Your task to perform on an android device: turn on javascript in the chrome app Image 0: 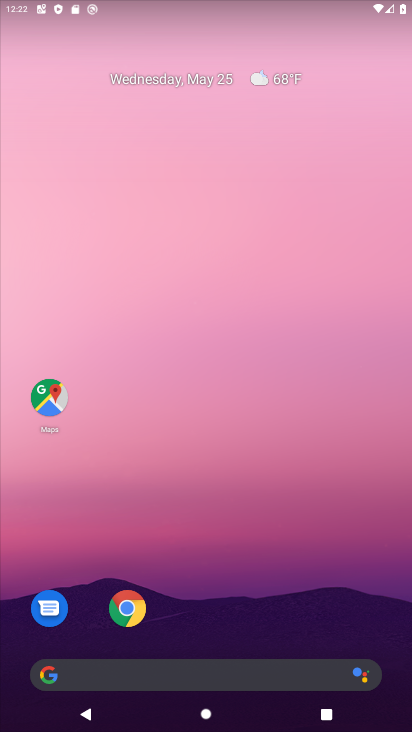
Step 0: click (141, 605)
Your task to perform on an android device: turn on javascript in the chrome app Image 1: 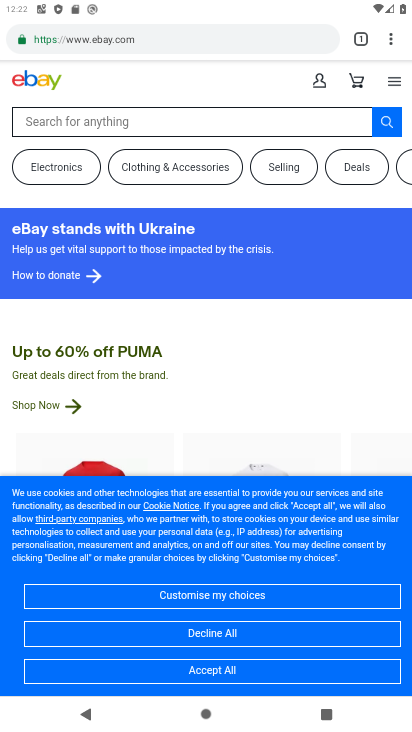
Step 1: click (393, 36)
Your task to perform on an android device: turn on javascript in the chrome app Image 2: 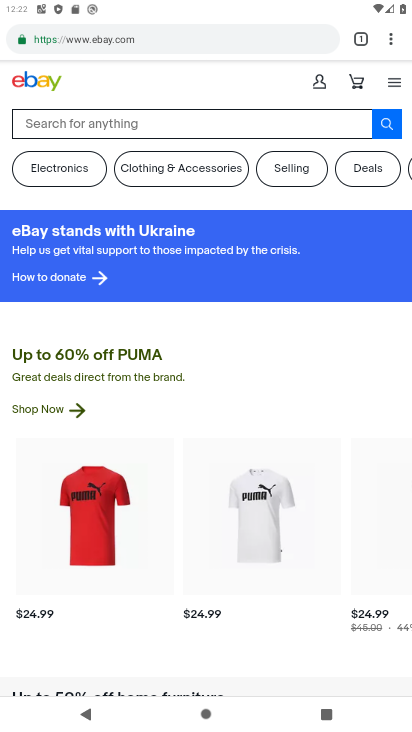
Step 2: click (392, 45)
Your task to perform on an android device: turn on javascript in the chrome app Image 3: 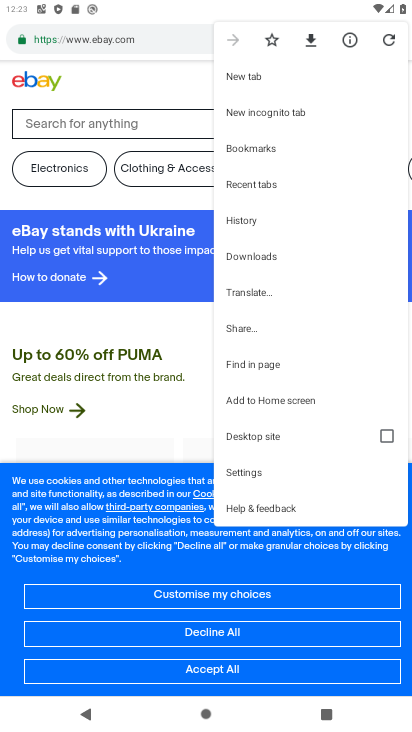
Step 3: click (279, 467)
Your task to perform on an android device: turn on javascript in the chrome app Image 4: 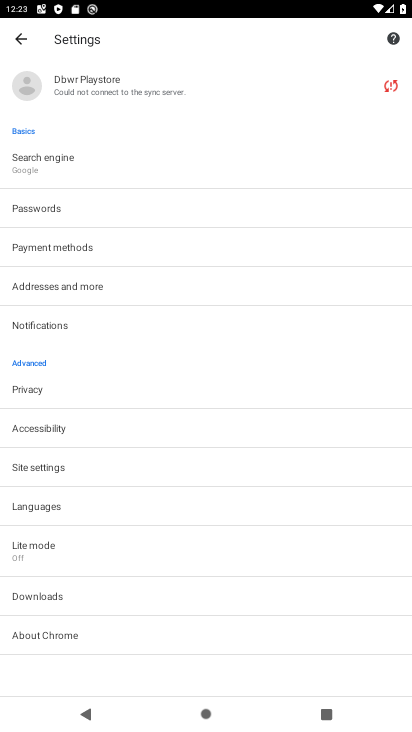
Step 4: click (93, 466)
Your task to perform on an android device: turn on javascript in the chrome app Image 5: 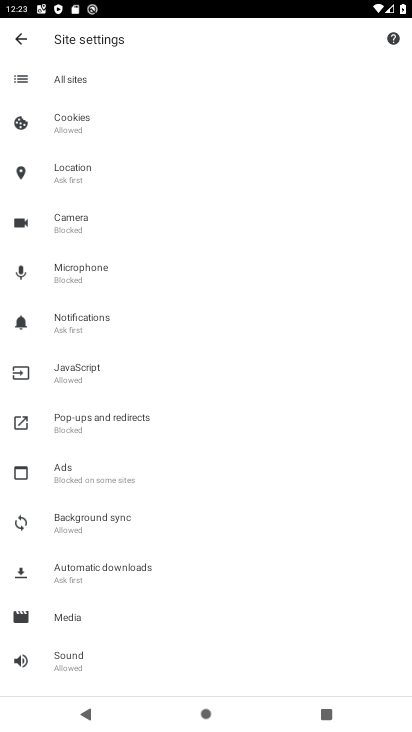
Step 5: click (119, 373)
Your task to perform on an android device: turn on javascript in the chrome app Image 6: 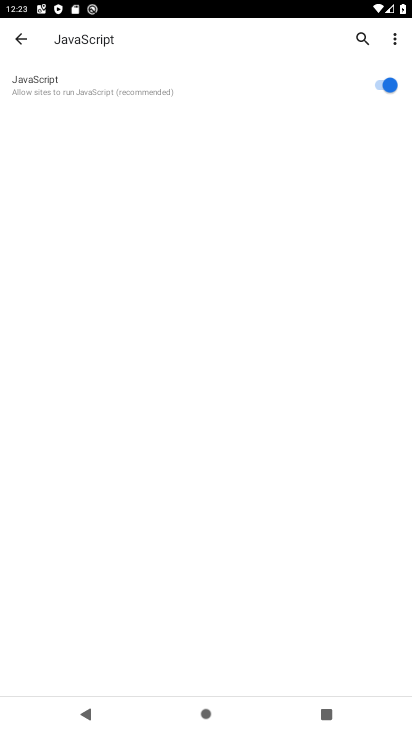
Step 6: task complete